Your task to perform on an android device: Open display settings Image 0: 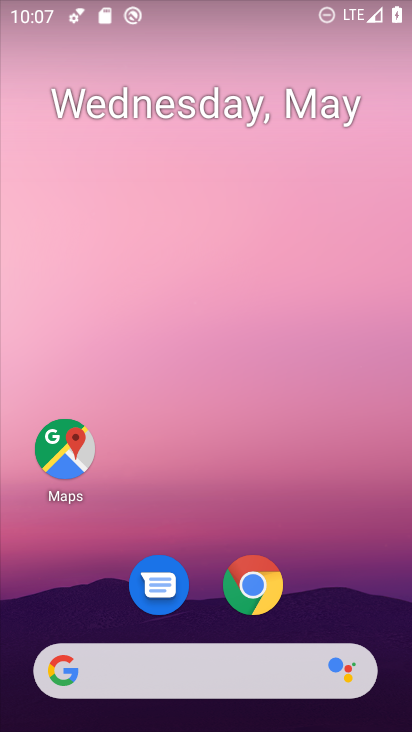
Step 0: drag from (245, 490) to (243, 48)
Your task to perform on an android device: Open display settings Image 1: 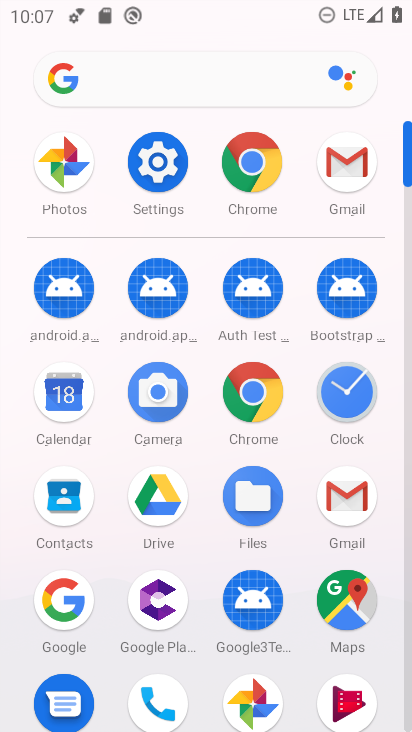
Step 1: click (156, 164)
Your task to perform on an android device: Open display settings Image 2: 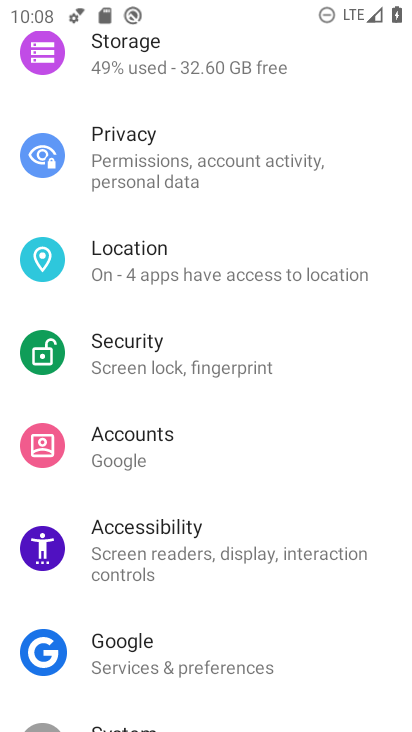
Step 2: drag from (206, 212) to (250, 649)
Your task to perform on an android device: Open display settings Image 3: 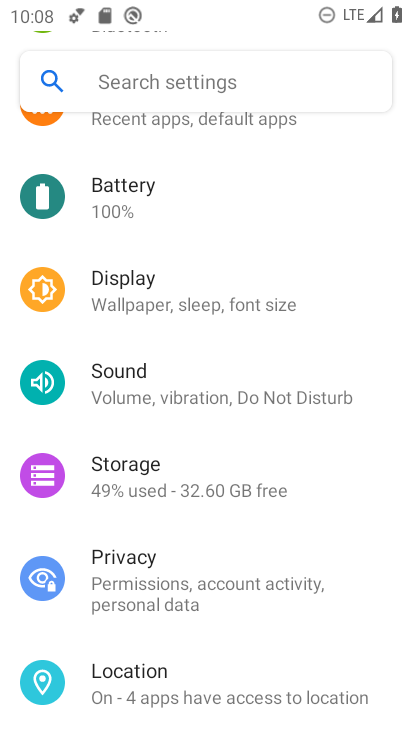
Step 3: click (187, 293)
Your task to perform on an android device: Open display settings Image 4: 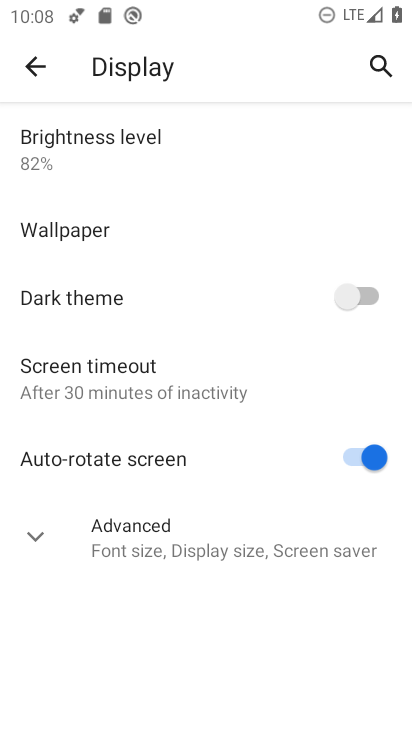
Step 4: task complete